Your task to perform on an android device: Check the news Image 0: 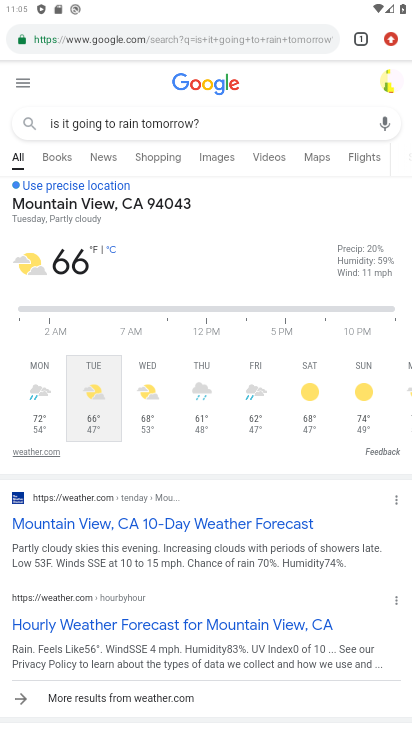
Step 0: press home button
Your task to perform on an android device: Check the news Image 1: 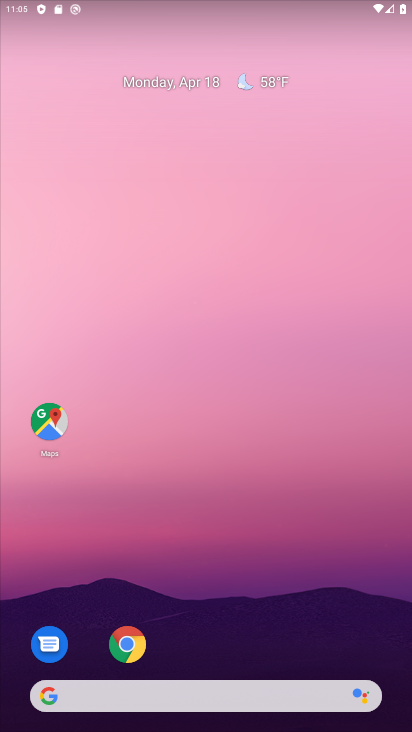
Step 1: click (137, 642)
Your task to perform on an android device: Check the news Image 2: 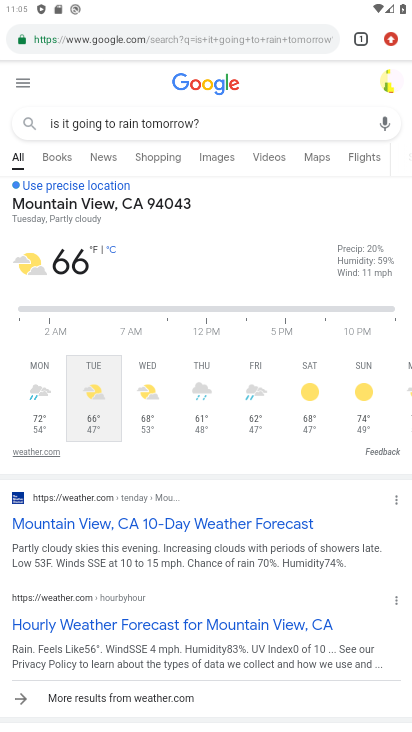
Step 2: click (134, 45)
Your task to perform on an android device: Check the news Image 3: 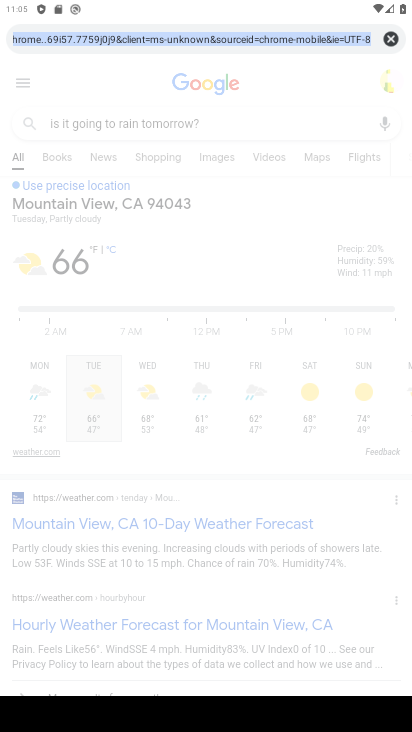
Step 3: type "news"
Your task to perform on an android device: Check the news Image 4: 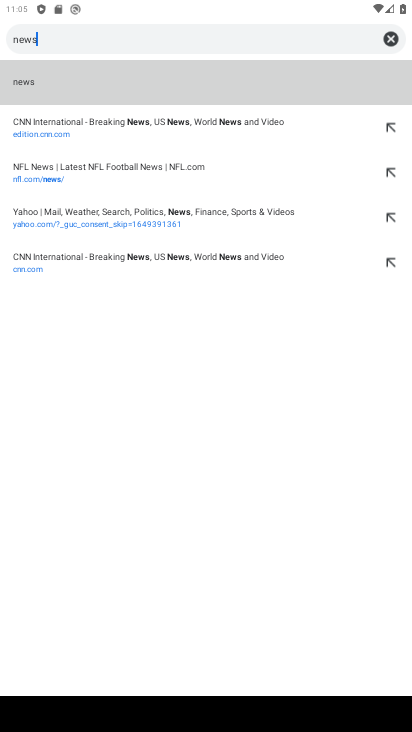
Step 4: click (84, 90)
Your task to perform on an android device: Check the news Image 5: 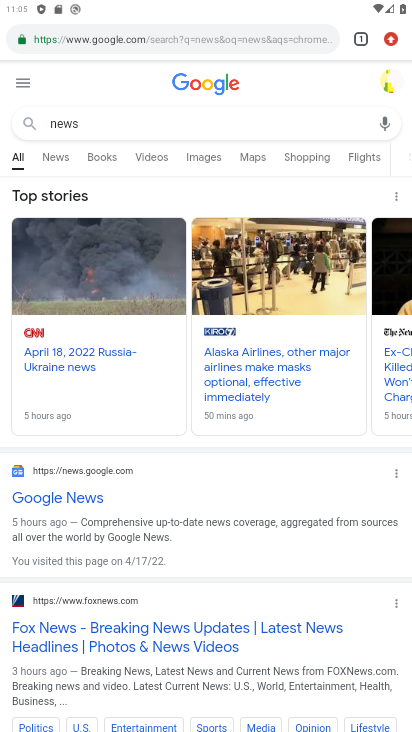
Step 5: task complete